Your task to perform on an android device: change the clock style Image 0: 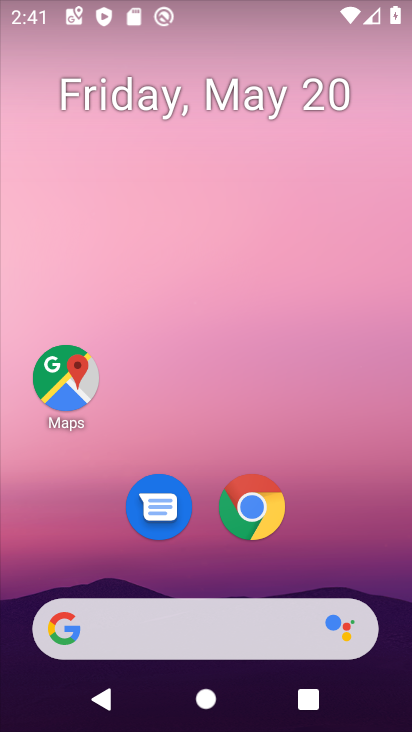
Step 0: drag from (232, 697) to (226, 71)
Your task to perform on an android device: change the clock style Image 1: 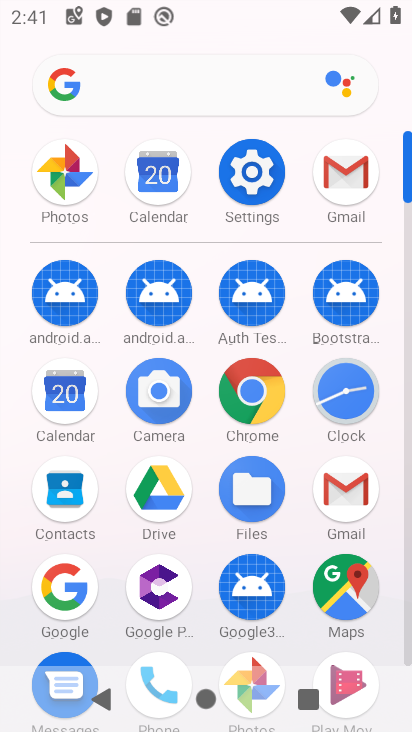
Step 1: click (338, 384)
Your task to perform on an android device: change the clock style Image 2: 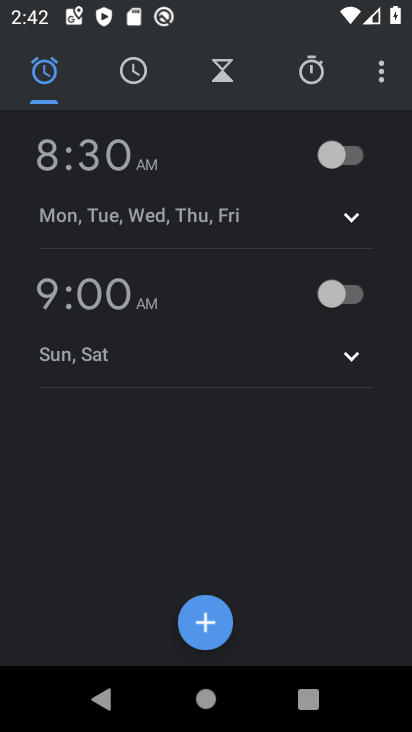
Step 2: click (382, 79)
Your task to perform on an android device: change the clock style Image 3: 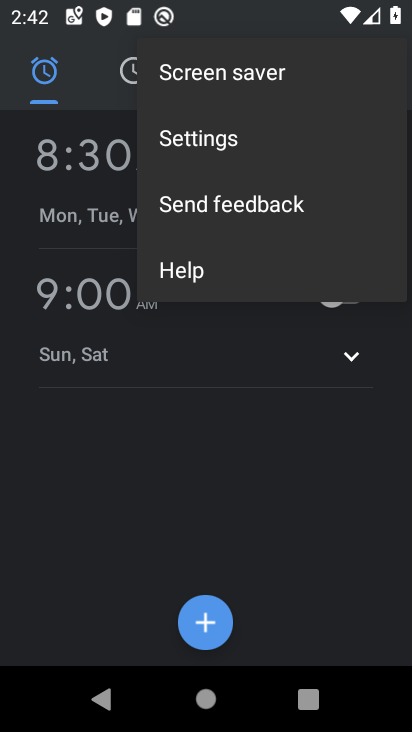
Step 3: click (242, 146)
Your task to perform on an android device: change the clock style Image 4: 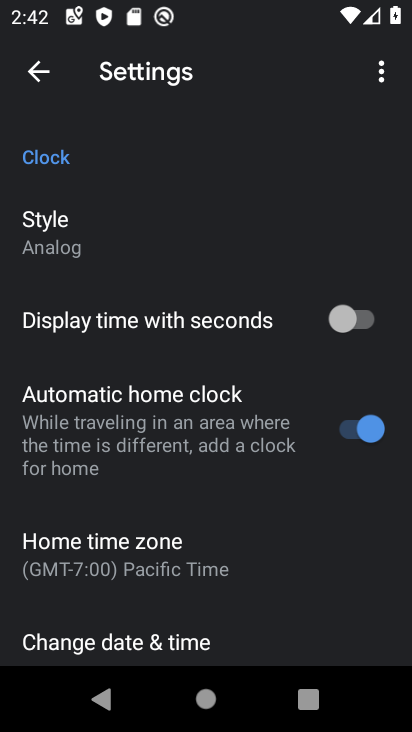
Step 4: click (55, 232)
Your task to perform on an android device: change the clock style Image 5: 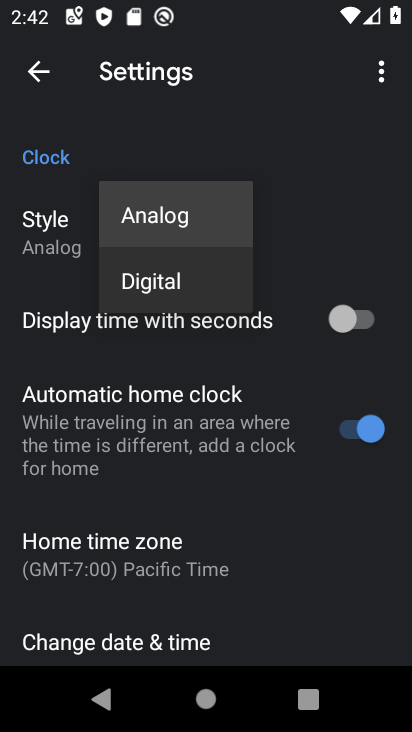
Step 5: click (164, 276)
Your task to perform on an android device: change the clock style Image 6: 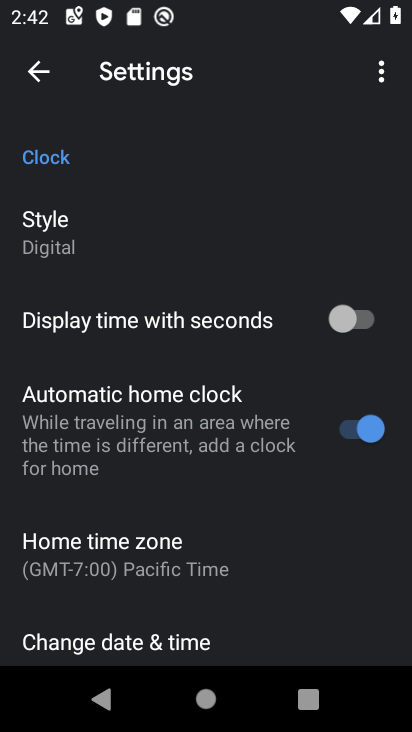
Step 6: task complete